Your task to perform on an android device: Set the phone to "Do not disturb". Image 0: 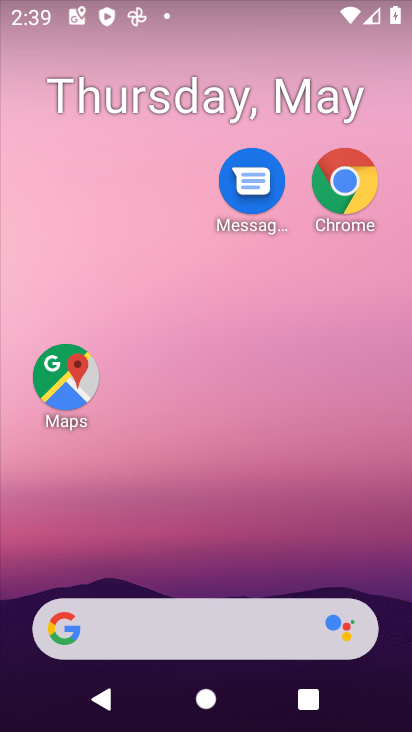
Step 0: drag from (242, 648) to (324, 24)
Your task to perform on an android device: Set the phone to "Do not disturb". Image 1: 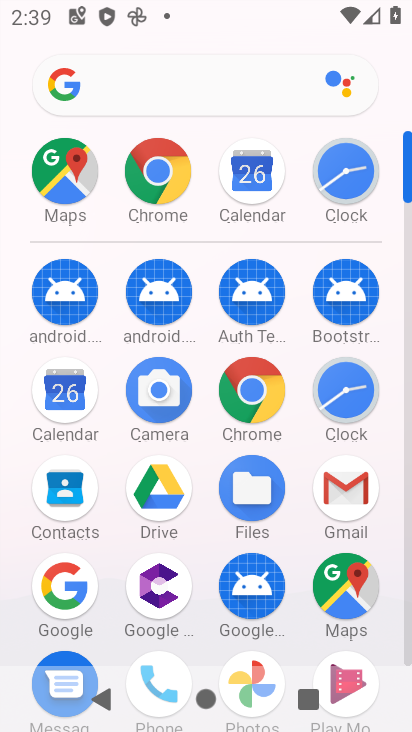
Step 1: drag from (274, 619) to (355, 231)
Your task to perform on an android device: Set the phone to "Do not disturb". Image 2: 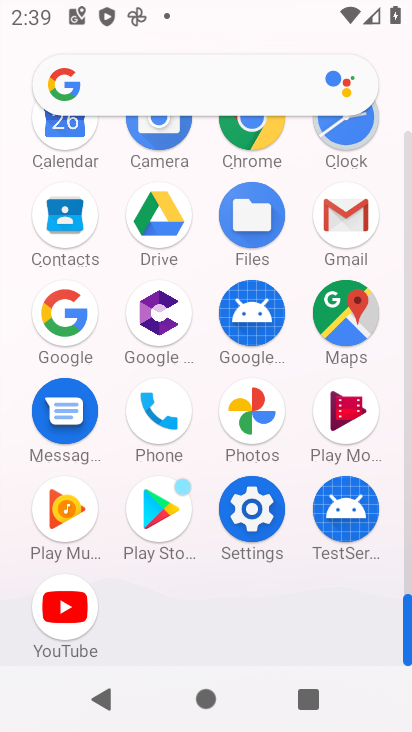
Step 2: click (262, 520)
Your task to perform on an android device: Set the phone to "Do not disturb". Image 3: 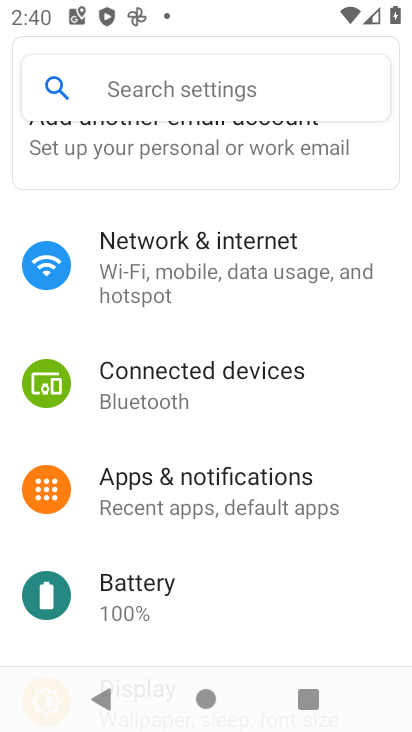
Step 3: drag from (210, 625) to (191, 114)
Your task to perform on an android device: Set the phone to "Do not disturb". Image 4: 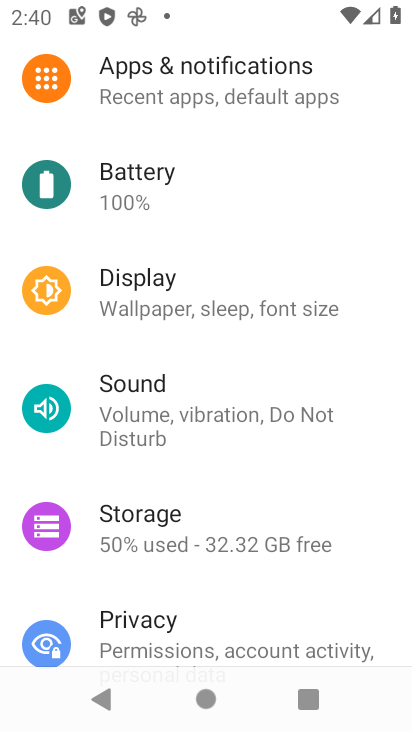
Step 4: click (158, 409)
Your task to perform on an android device: Set the phone to "Do not disturb". Image 5: 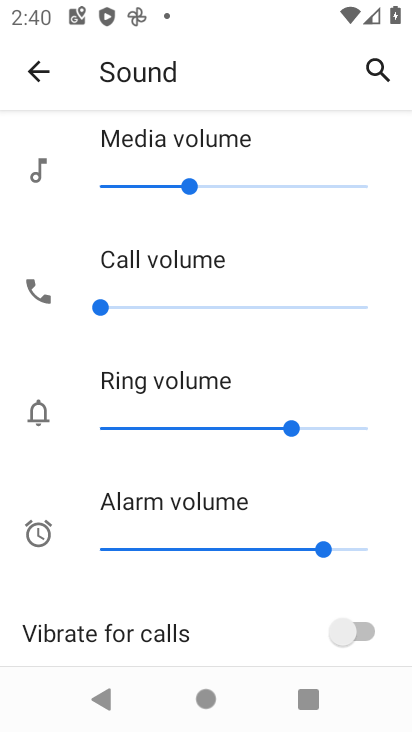
Step 5: drag from (222, 639) to (259, 135)
Your task to perform on an android device: Set the phone to "Do not disturb". Image 6: 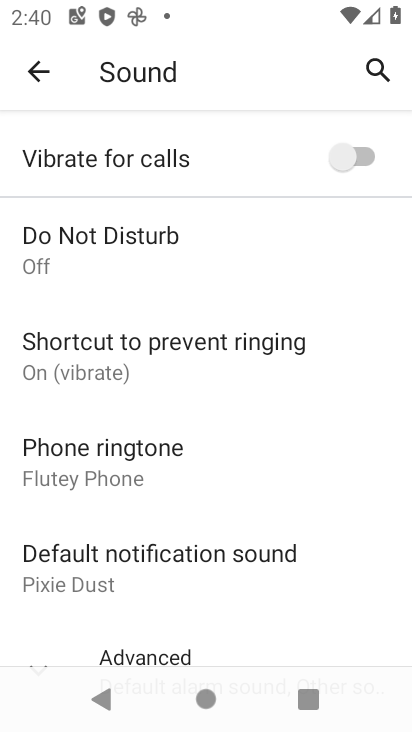
Step 6: click (83, 248)
Your task to perform on an android device: Set the phone to "Do not disturb". Image 7: 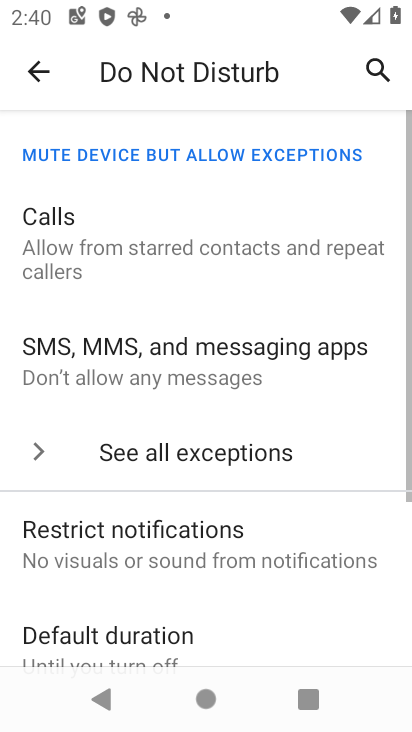
Step 7: drag from (240, 548) to (259, 5)
Your task to perform on an android device: Set the phone to "Do not disturb". Image 8: 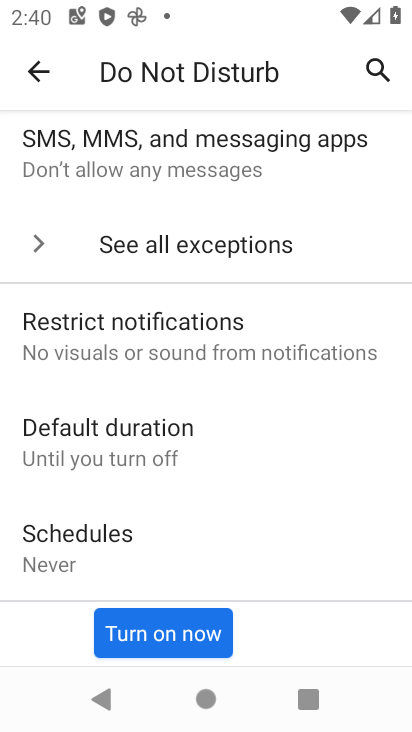
Step 8: click (168, 628)
Your task to perform on an android device: Set the phone to "Do not disturb". Image 9: 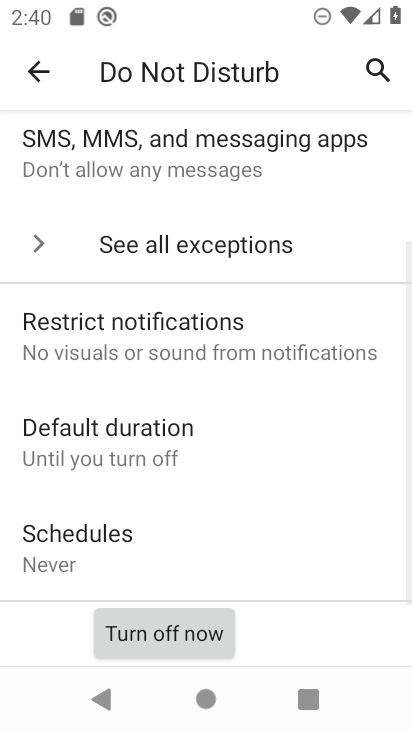
Step 9: task complete